Your task to perform on an android device: change the clock display to show seconds Image 0: 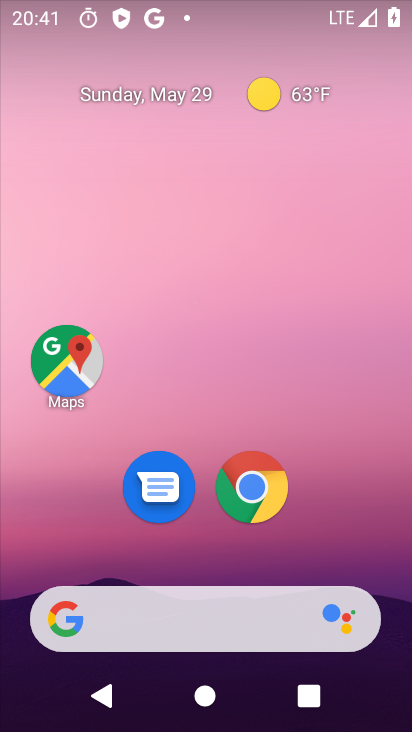
Step 0: drag from (326, 543) to (259, 165)
Your task to perform on an android device: change the clock display to show seconds Image 1: 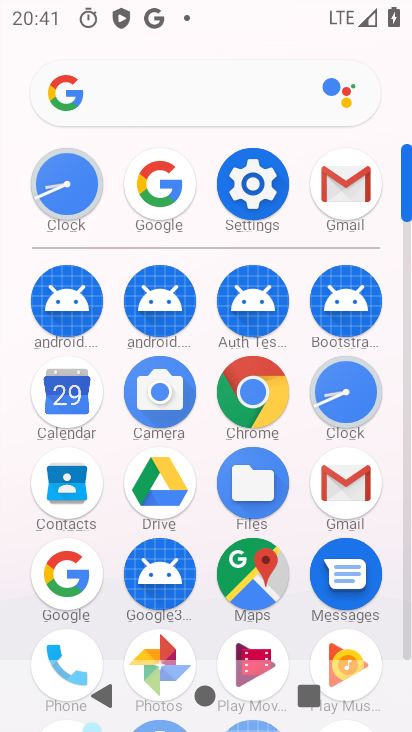
Step 1: click (67, 183)
Your task to perform on an android device: change the clock display to show seconds Image 2: 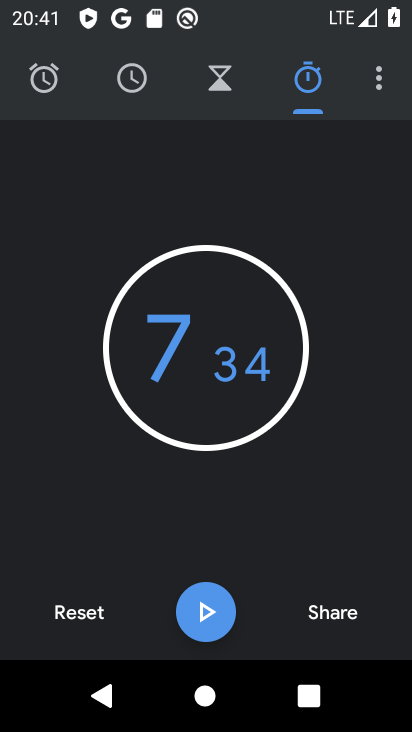
Step 2: click (379, 79)
Your task to perform on an android device: change the clock display to show seconds Image 3: 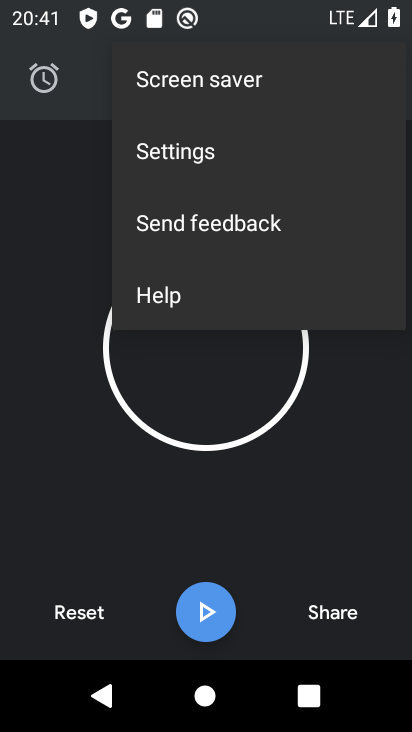
Step 3: click (194, 154)
Your task to perform on an android device: change the clock display to show seconds Image 4: 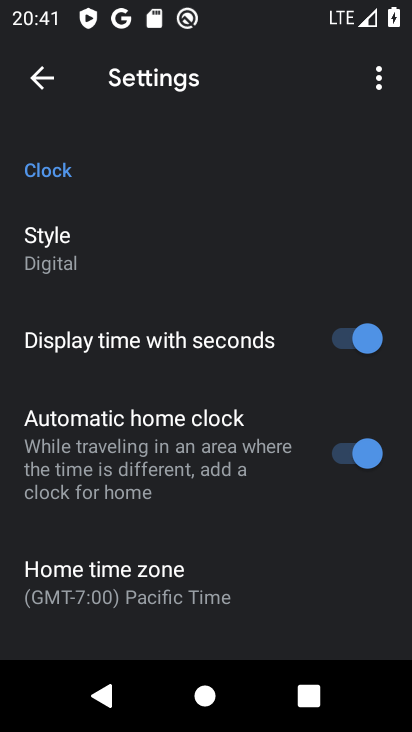
Step 4: click (365, 349)
Your task to perform on an android device: change the clock display to show seconds Image 5: 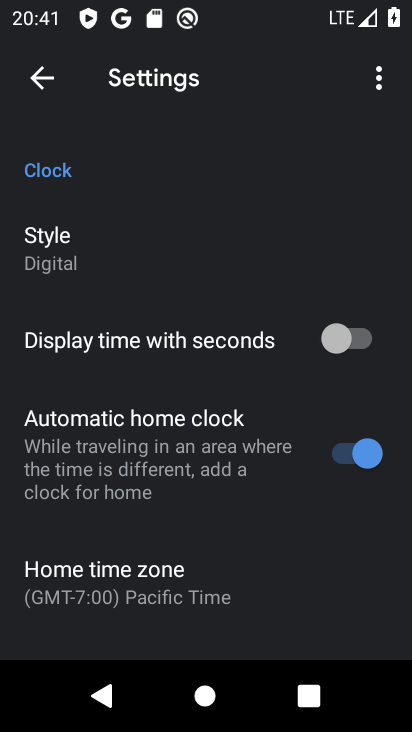
Step 5: task complete